Your task to perform on an android device: What's the latest video from GameSpot? Image 0: 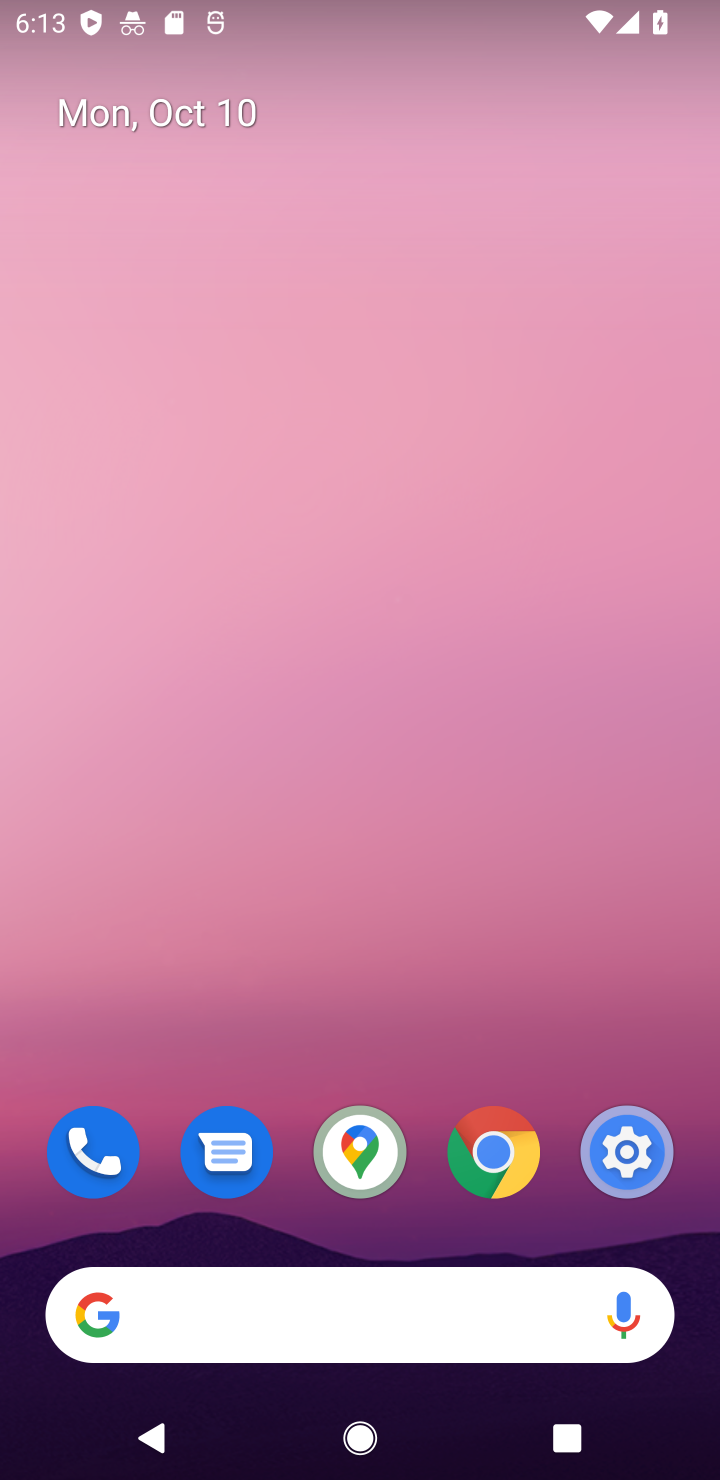
Step 0: click (494, 1160)
Your task to perform on an android device: What's the latest video from GameSpot? Image 1: 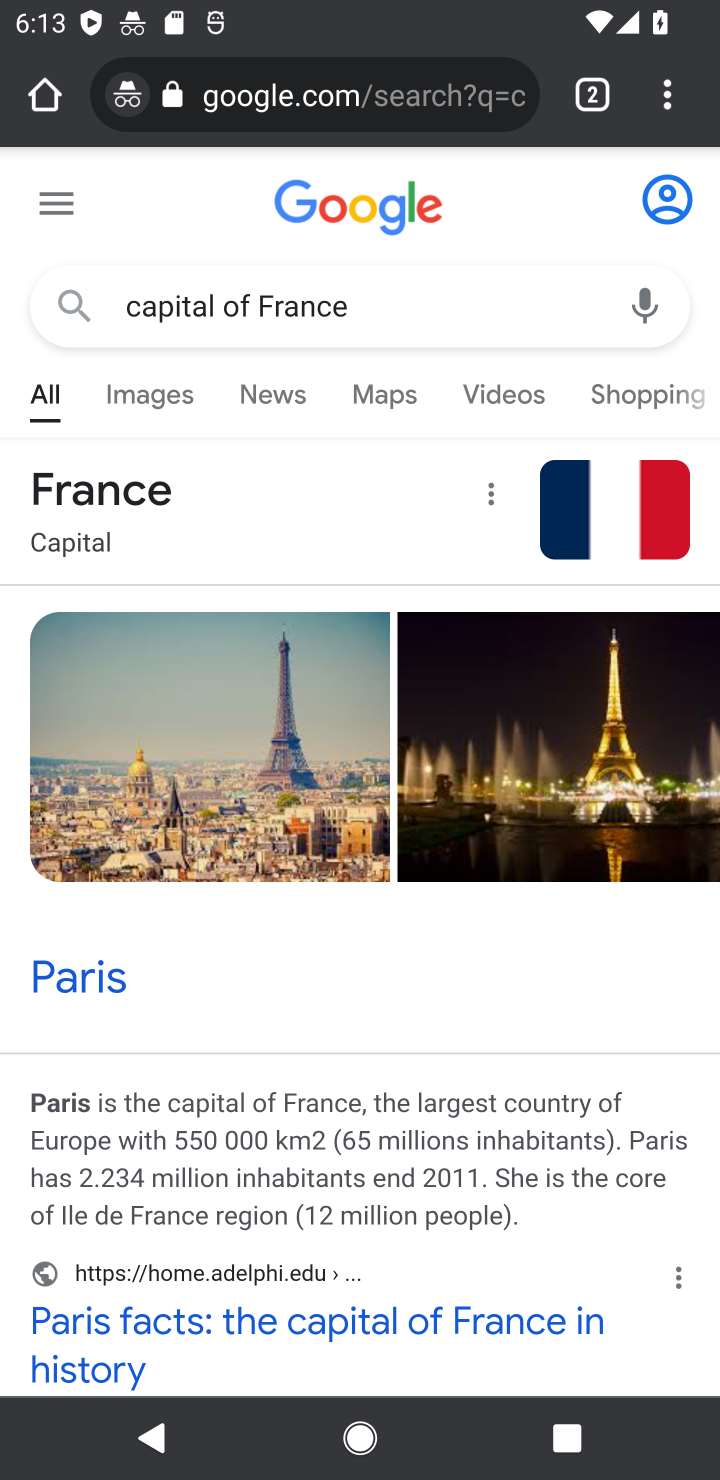
Step 1: click (449, 102)
Your task to perform on an android device: What's the latest video from GameSpot? Image 2: 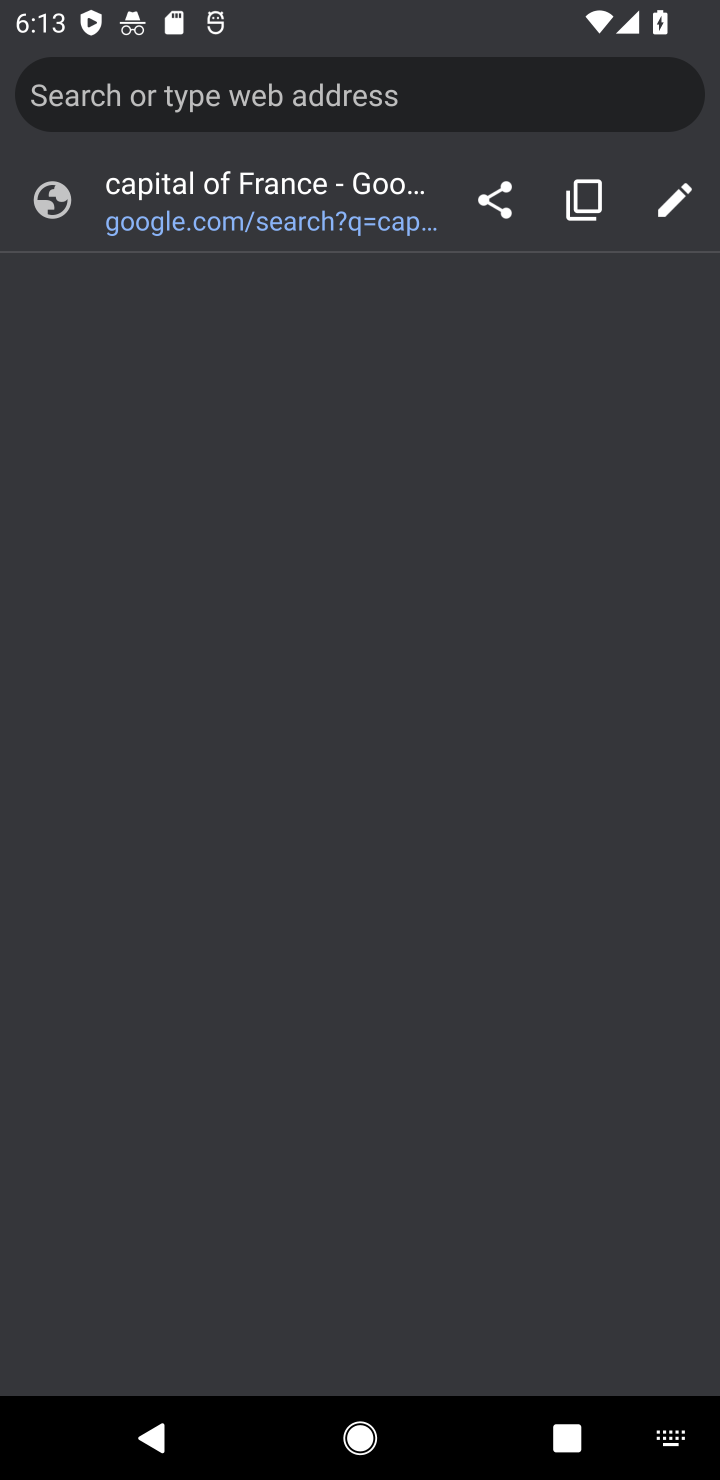
Step 2: type "latest video from GameSpot"
Your task to perform on an android device: What's the latest video from GameSpot? Image 3: 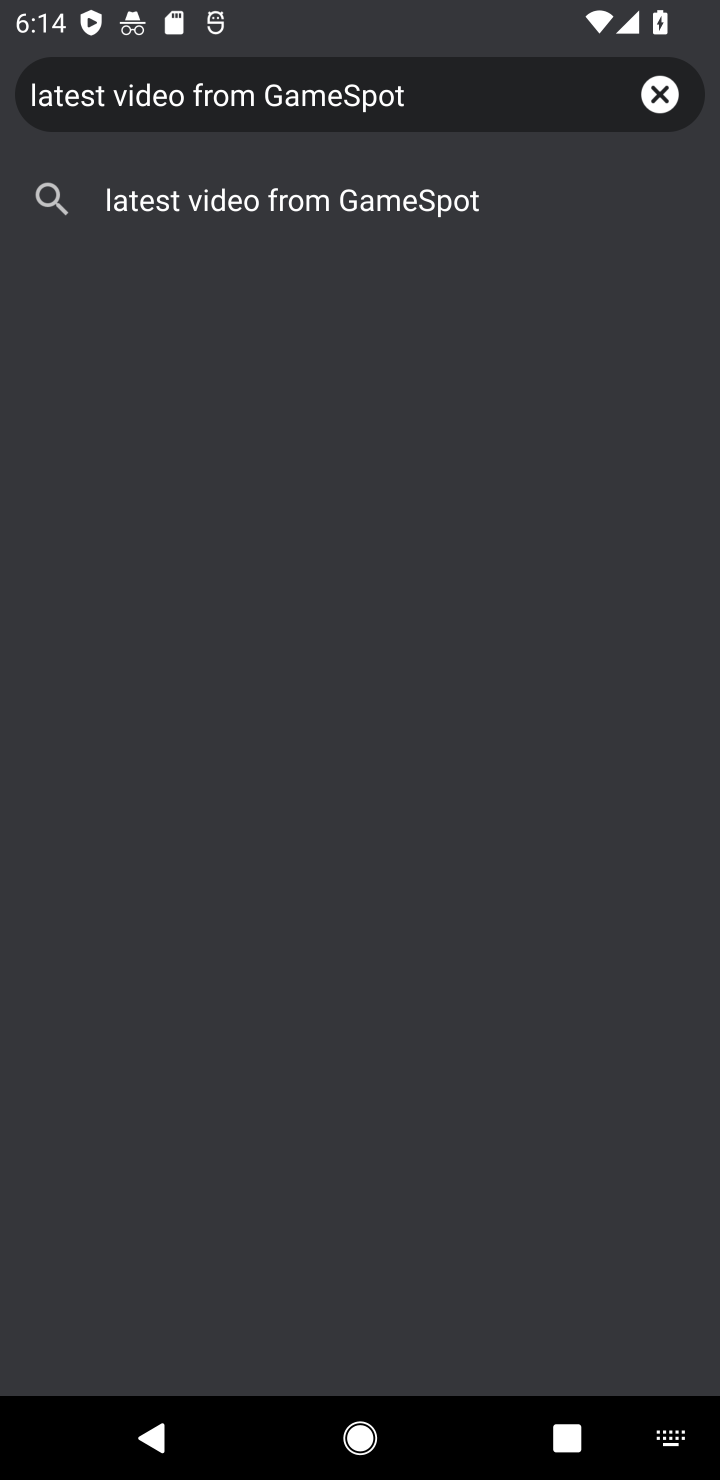
Step 3: click (456, 226)
Your task to perform on an android device: What's the latest video from GameSpot? Image 4: 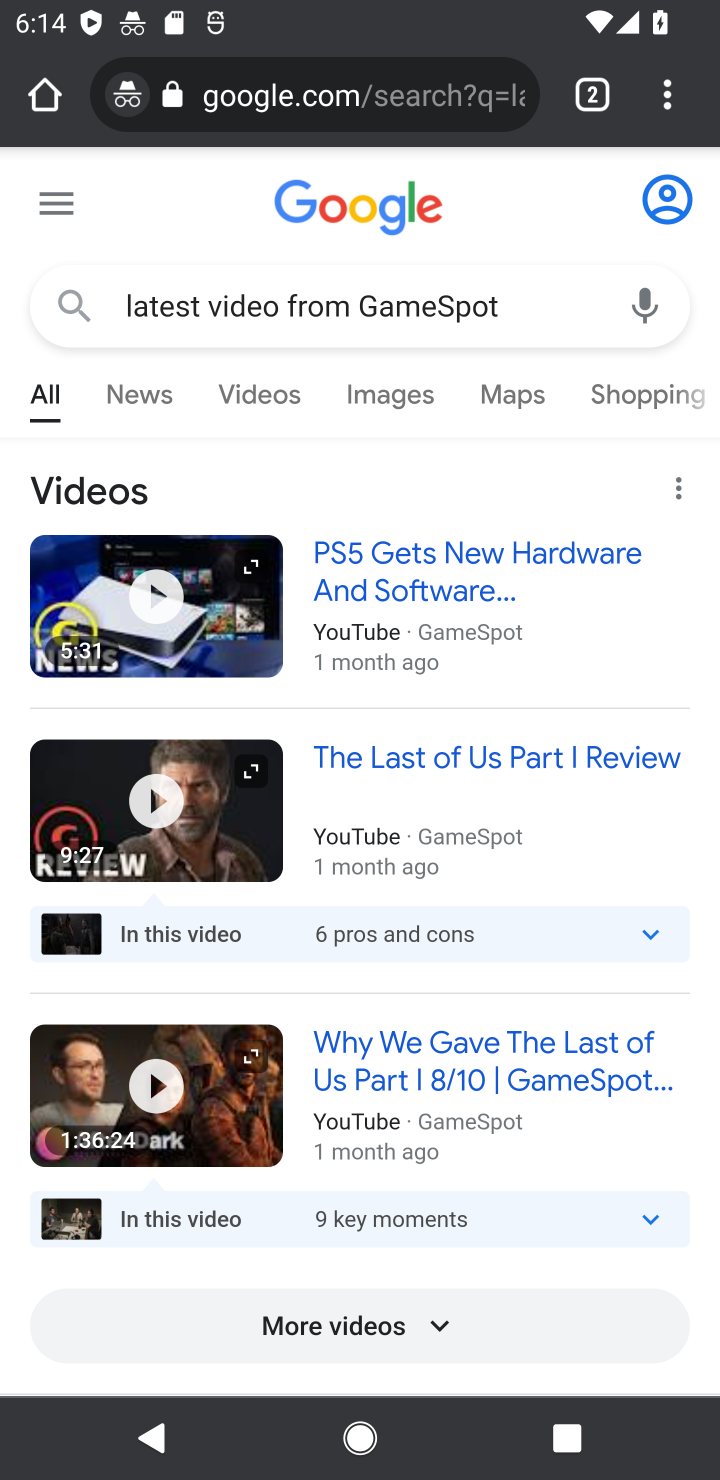
Step 4: task complete